Your task to perform on an android device: Open Youtube and go to the subscriptions tab Image 0: 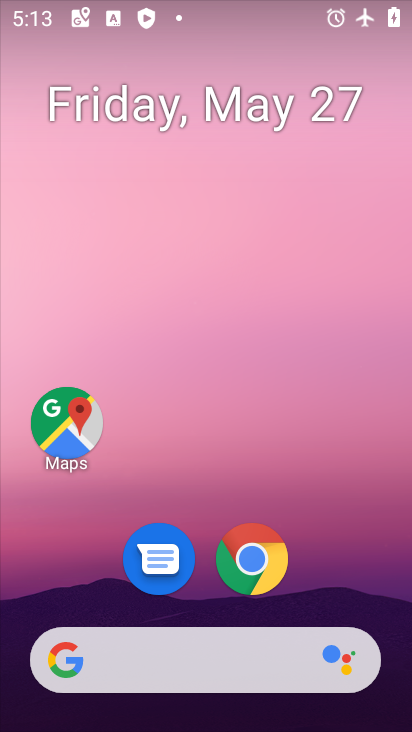
Step 0: drag from (346, 670) to (331, 13)
Your task to perform on an android device: Open Youtube and go to the subscriptions tab Image 1: 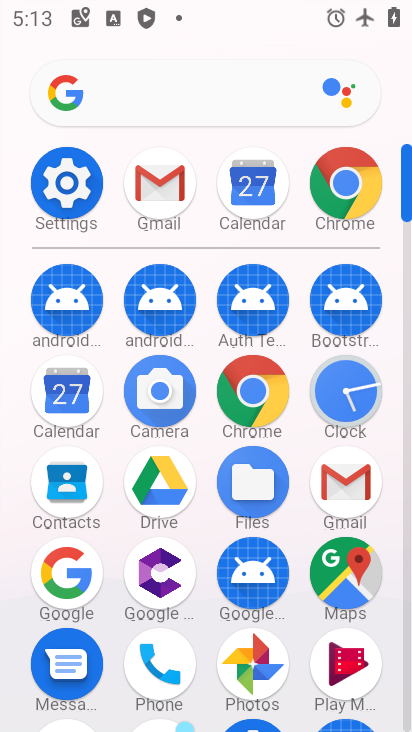
Step 1: drag from (304, 630) to (340, 146)
Your task to perform on an android device: Open Youtube and go to the subscriptions tab Image 2: 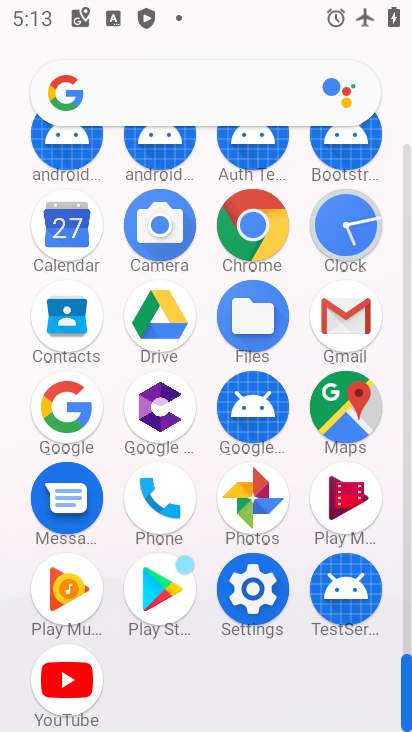
Step 2: click (70, 679)
Your task to perform on an android device: Open Youtube and go to the subscriptions tab Image 3: 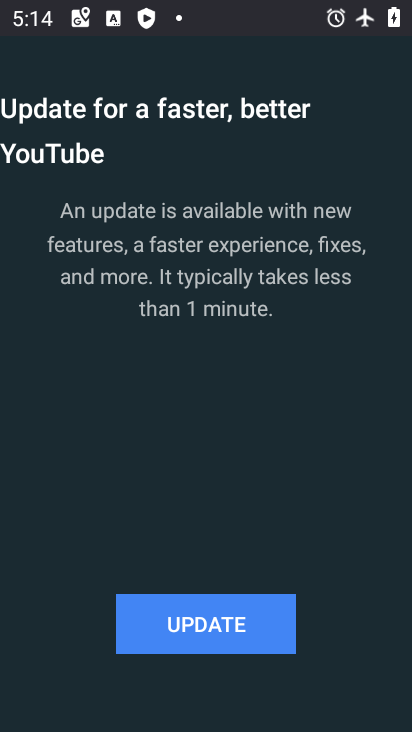
Step 3: click (245, 634)
Your task to perform on an android device: Open Youtube and go to the subscriptions tab Image 4: 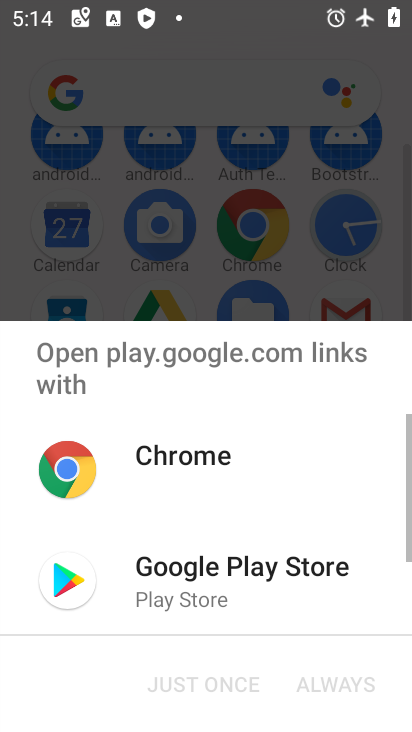
Step 4: click (200, 588)
Your task to perform on an android device: Open Youtube and go to the subscriptions tab Image 5: 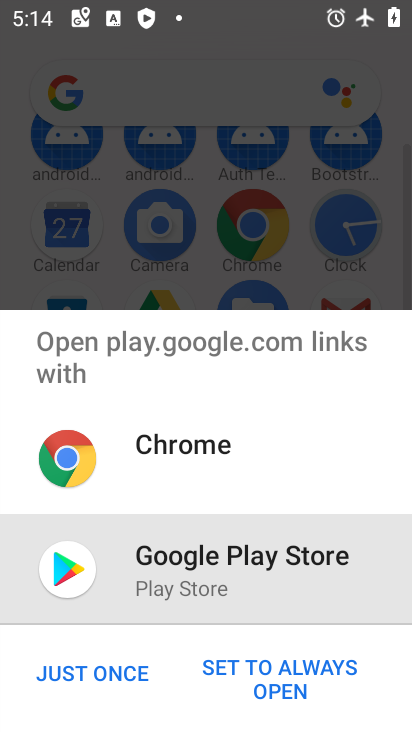
Step 5: click (66, 677)
Your task to perform on an android device: Open Youtube and go to the subscriptions tab Image 6: 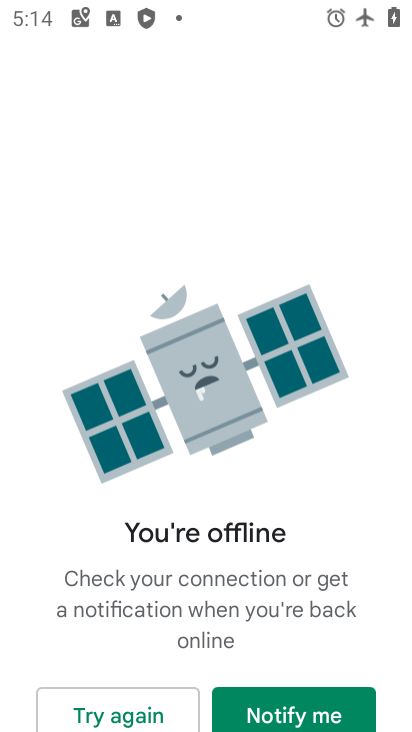
Step 6: task complete